Your task to perform on an android device: turn off location Image 0: 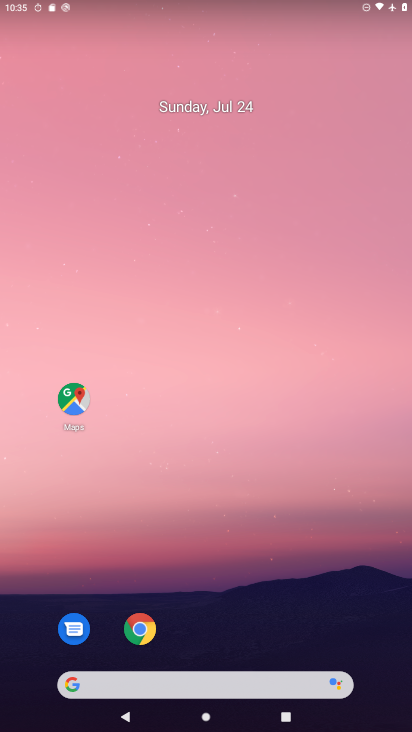
Step 0: drag from (192, 681) to (269, 191)
Your task to perform on an android device: turn off location Image 1: 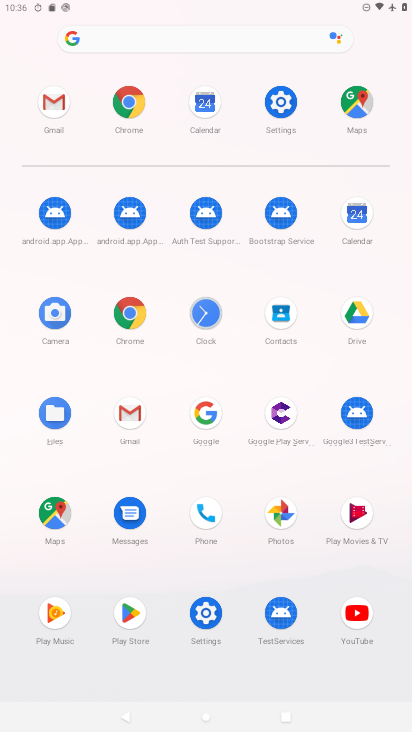
Step 1: click (289, 109)
Your task to perform on an android device: turn off location Image 2: 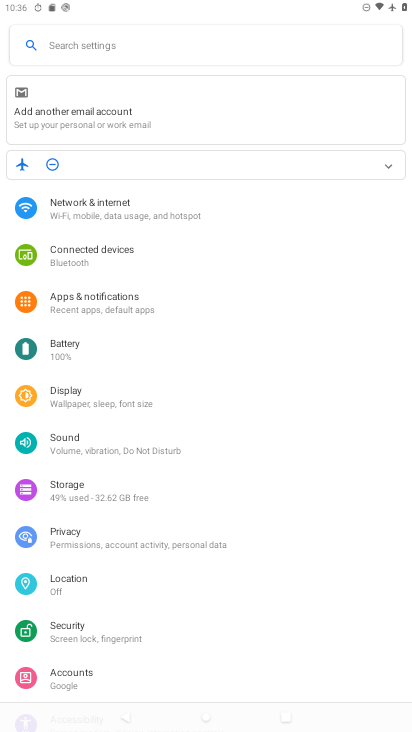
Step 2: click (100, 592)
Your task to perform on an android device: turn off location Image 3: 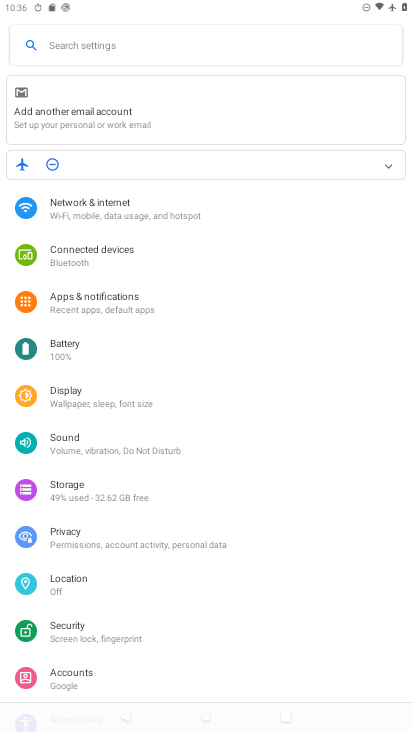
Step 3: click (59, 587)
Your task to perform on an android device: turn off location Image 4: 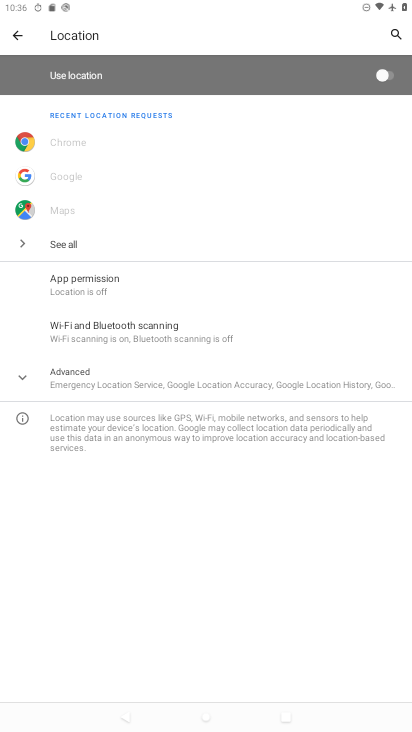
Step 4: task complete